Your task to perform on an android device: See recent photos Image 0: 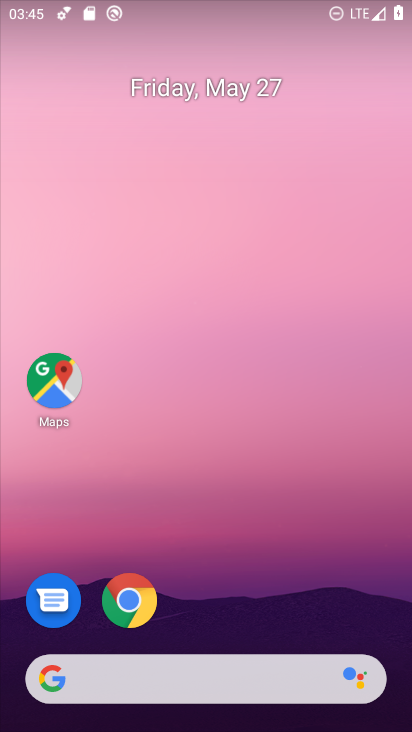
Step 0: drag from (209, 727) to (204, 181)
Your task to perform on an android device: See recent photos Image 1: 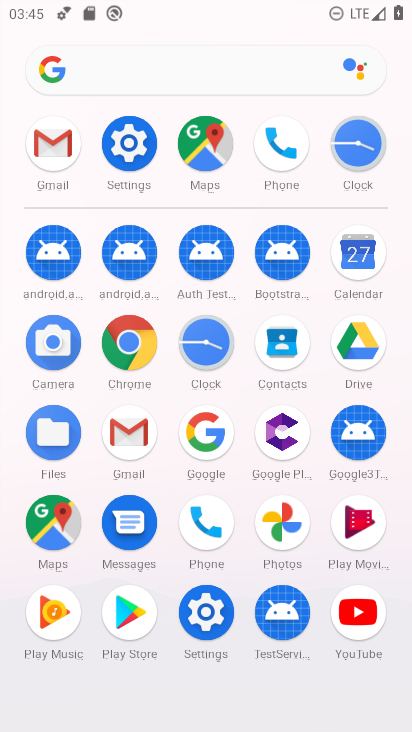
Step 1: click (289, 519)
Your task to perform on an android device: See recent photos Image 2: 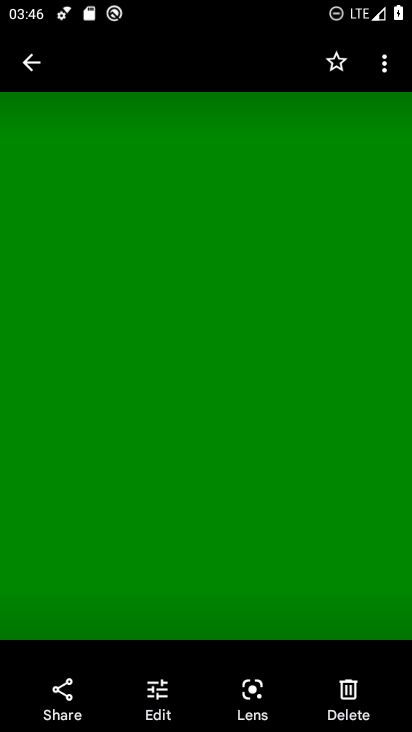
Step 2: task complete